Your task to perform on an android device: Open my contact list Image 0: 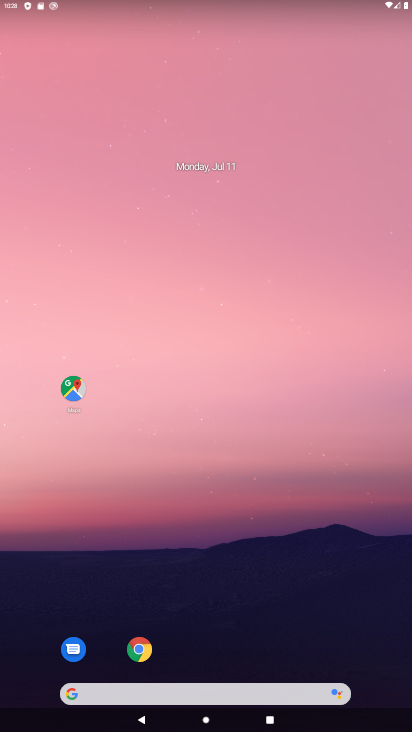
Step 0: drag from (284, 443) to (253, 88)
Your task to perform on an android device: Open my contact list Image 1: 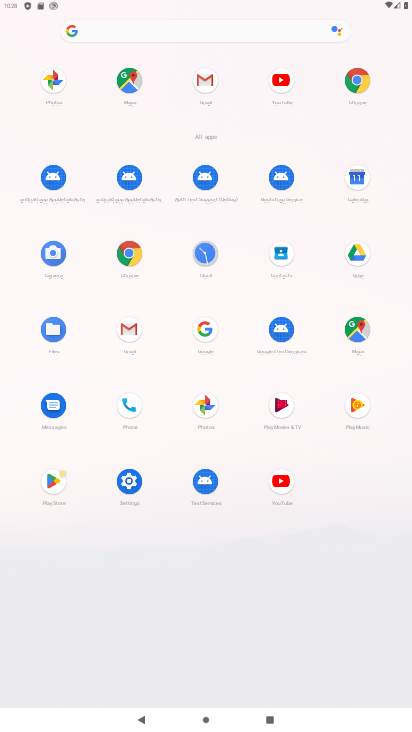
Step 1: click (284, 246)
Your task to perform on an android device: Open my contact list Image 2: 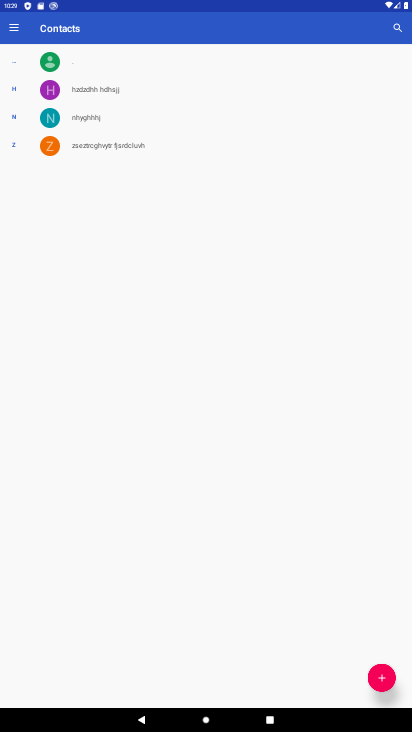
Step 2: task complete